Your task to perform on an android device: Open ESPN.com Image 0: 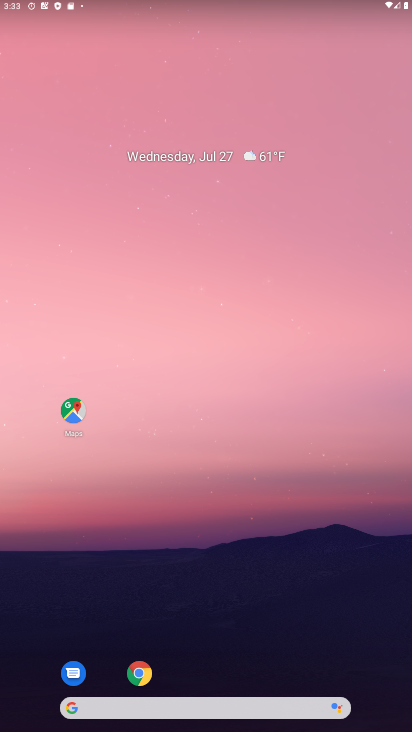
Step 0: click (99, 709)
Your task to perform on an android device: Open ESPN.com Image 1: 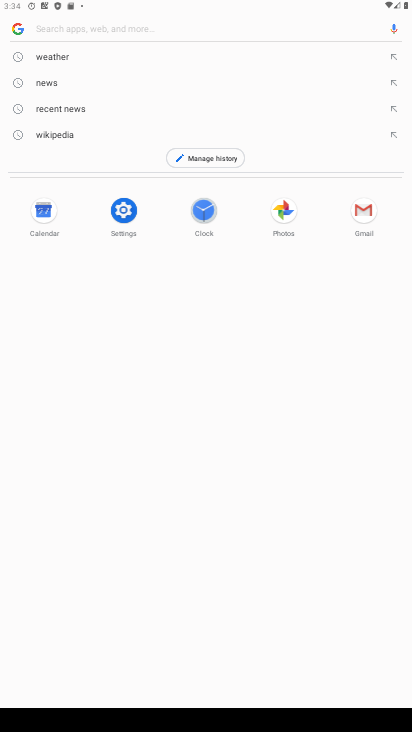
Step 1: type "ESPN.com"
Your task to perform on an android device: Open ESPN.com Image 2: 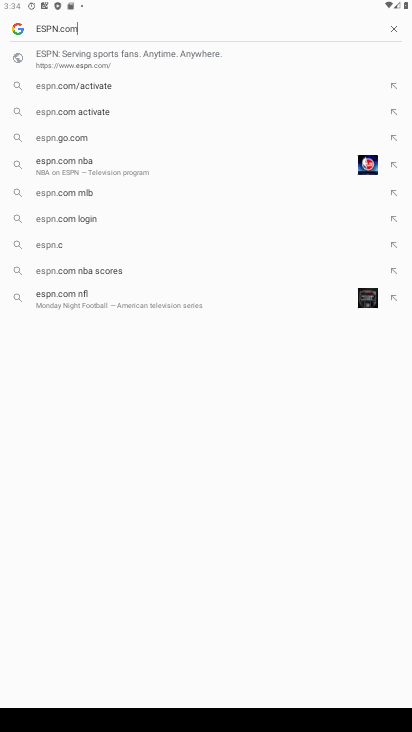
Step 2: type ""
Your task to perform on an android device: Open ESPN.com Image 3: 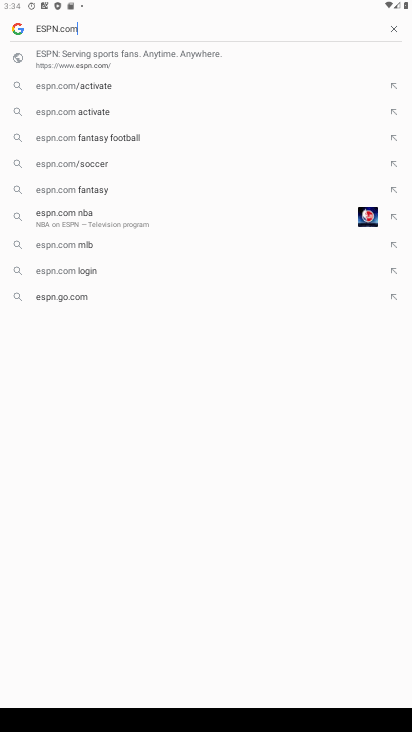
Step 3: type ""
Your task to perform on an android device: Open ESPN.com Image 4: 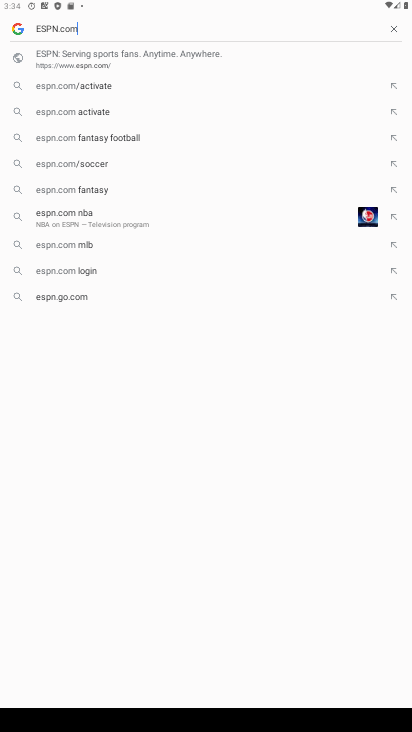
Step 4: type ""
Your task to perform on an android device: Open ESPN.com Image 5: 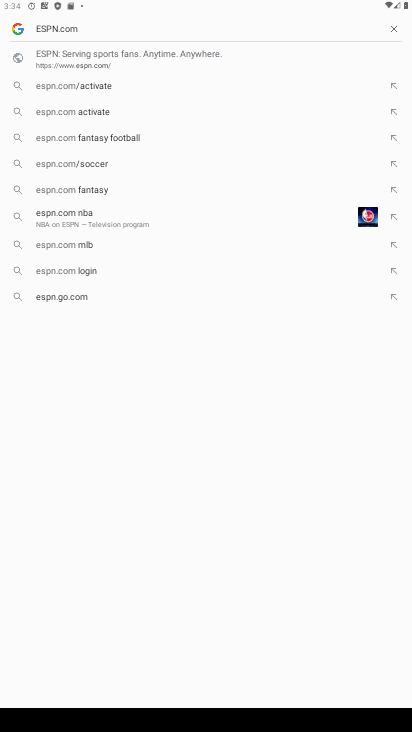
Step 5: task complete